Your task to perform on an android device: turn off sleep mode Image 0: 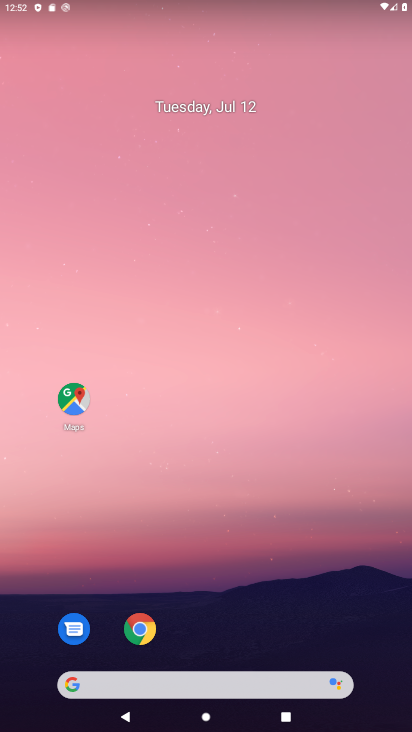
Step 0: drag from (317, 7) to (273, 469)
Your task to perform on an android device: turn off sleep mode Image 1: 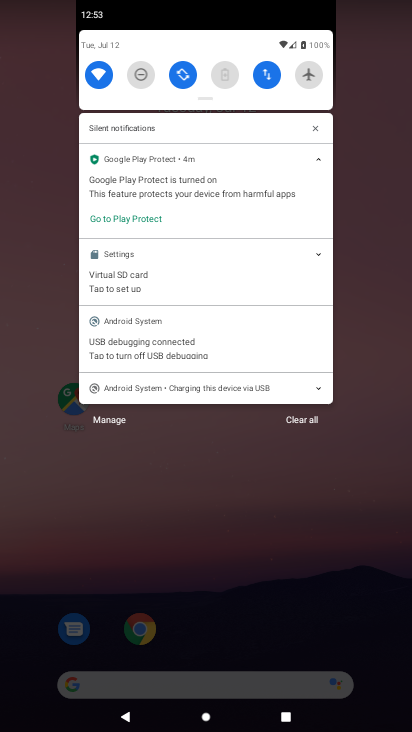
Step 1: drag from (241, 97) to (199, 583)
Your task to perform on an android device: turn off sleep mode Image 2: 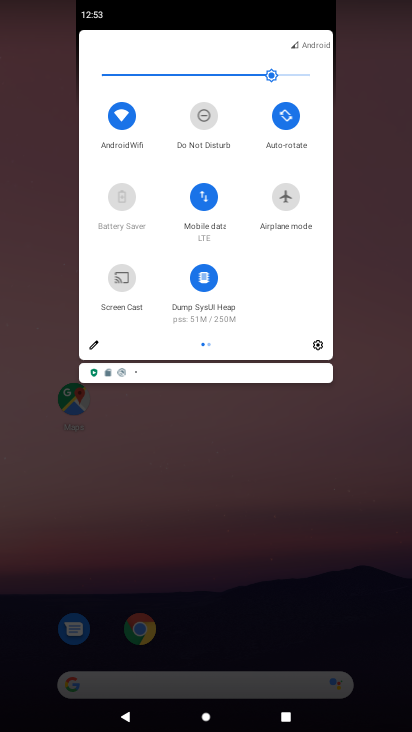
Step 2: click (97, 349)
Your task to perform on an android device: turn off sleep mode Image 3: 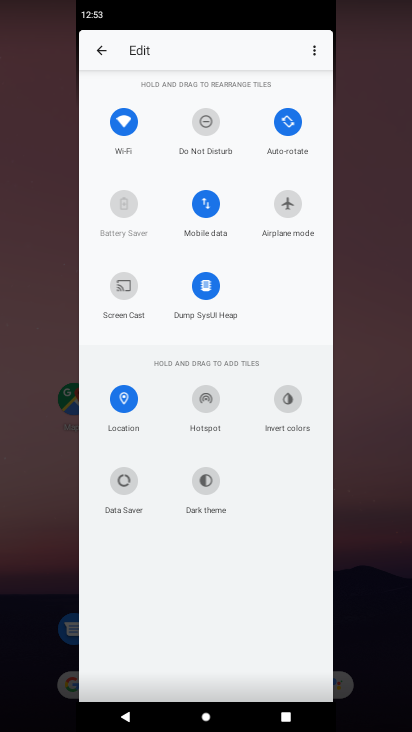
Step 3: task complete